Your task to perform on an android device: Open eBay Image 0: 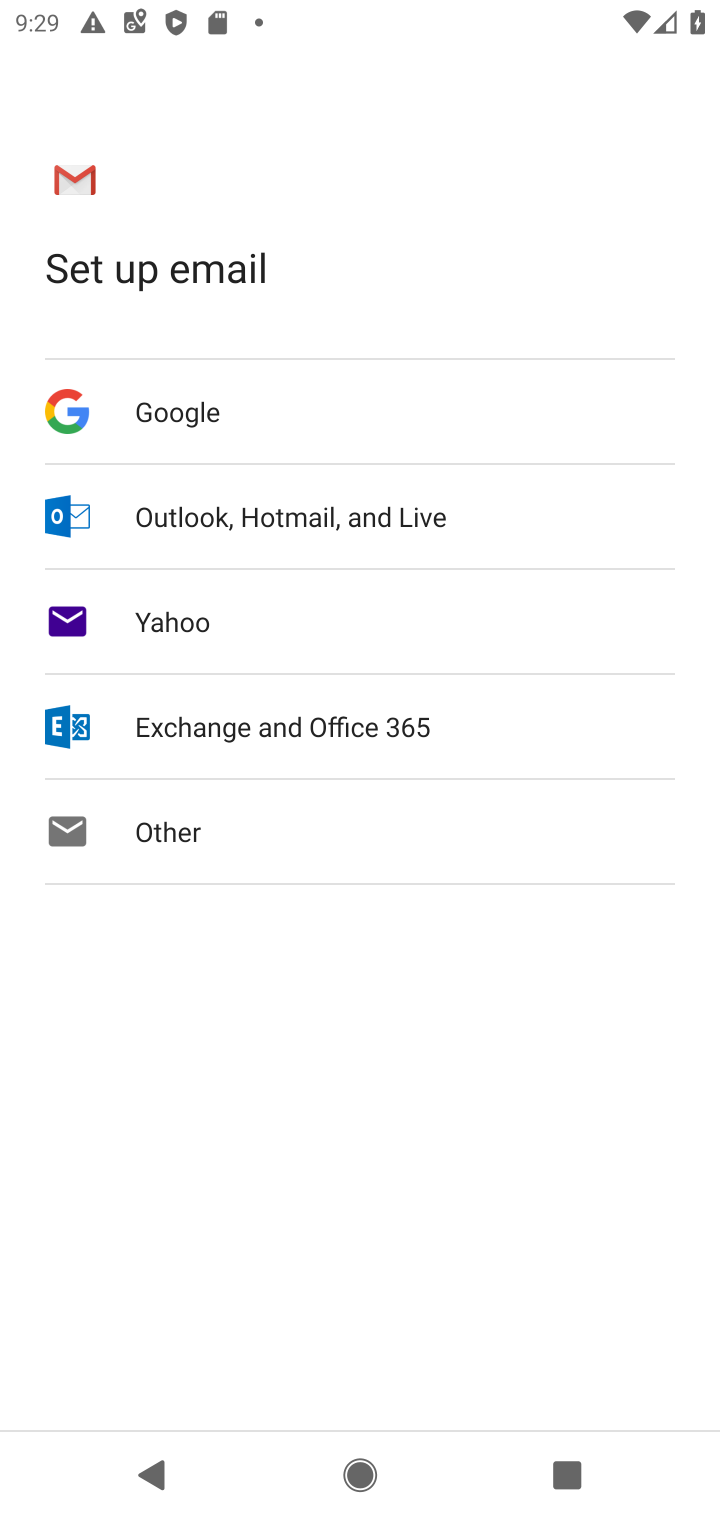
Step 0: press home button
Your task to perform on an android device: Open eBay Image 1: 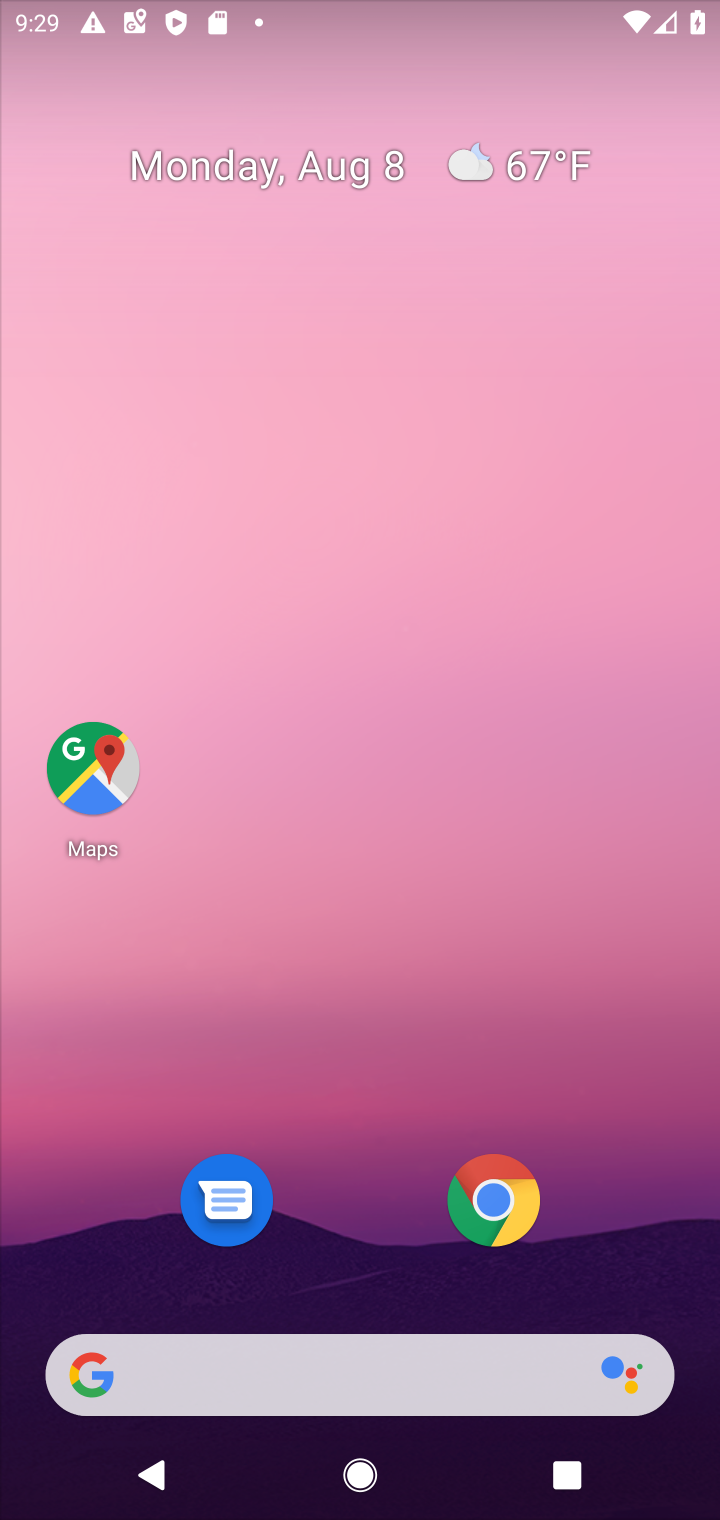
Step 1: click (481, 1203)
Your task to perform on an android device: Open eBay Image 2: 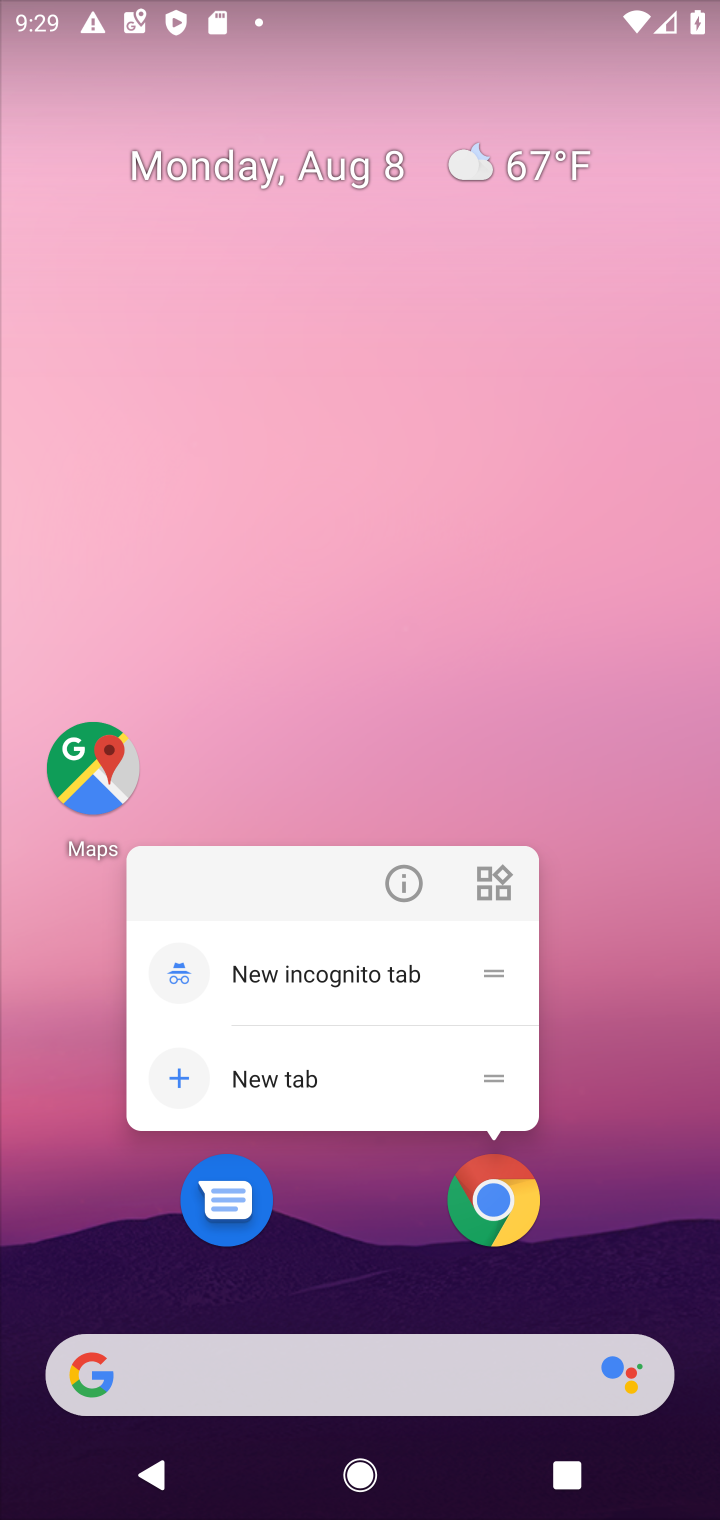
Step 2: click (520, 1199)
Your task to perform on an android device: Open eBay Image 3: 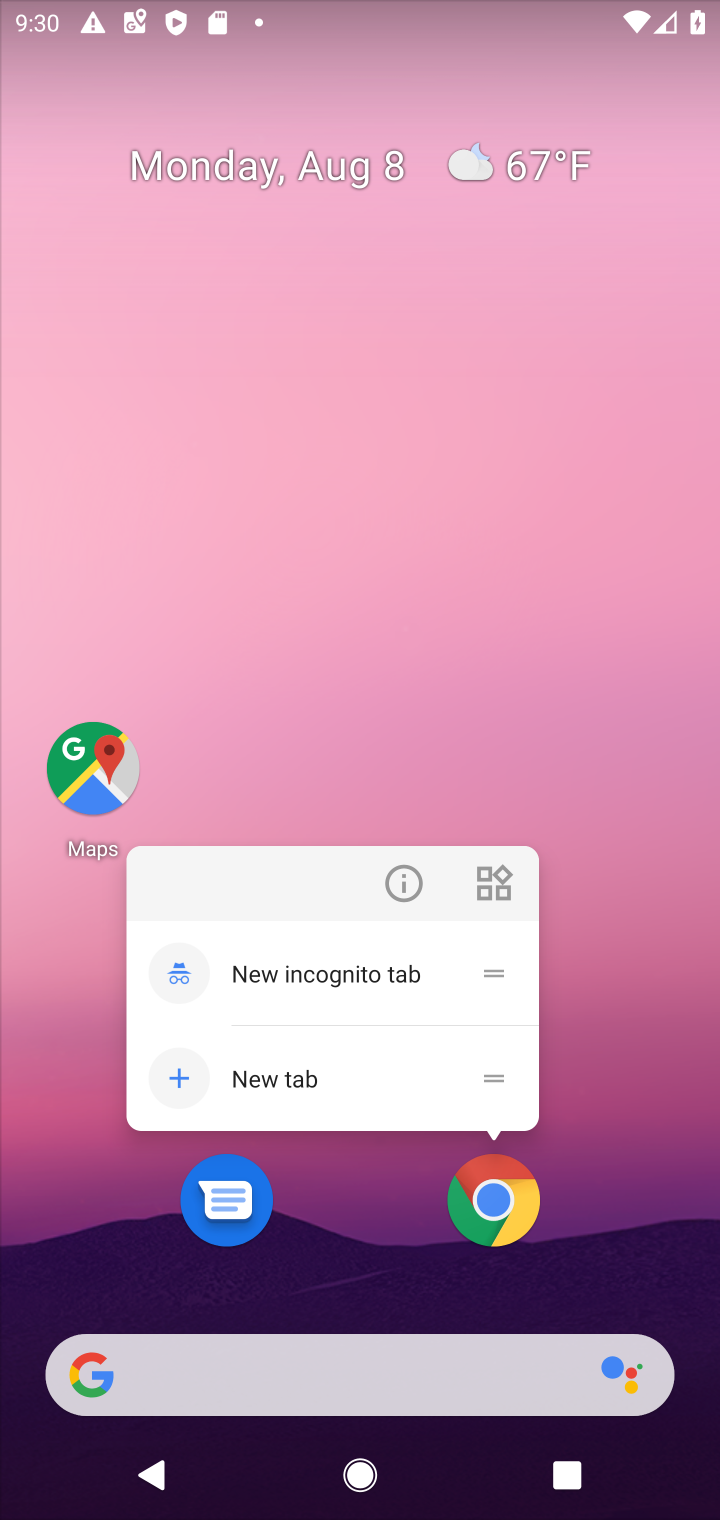
Step 3: click (515, 1203)
Your task to perform on an android device: Open eBay Image 4: 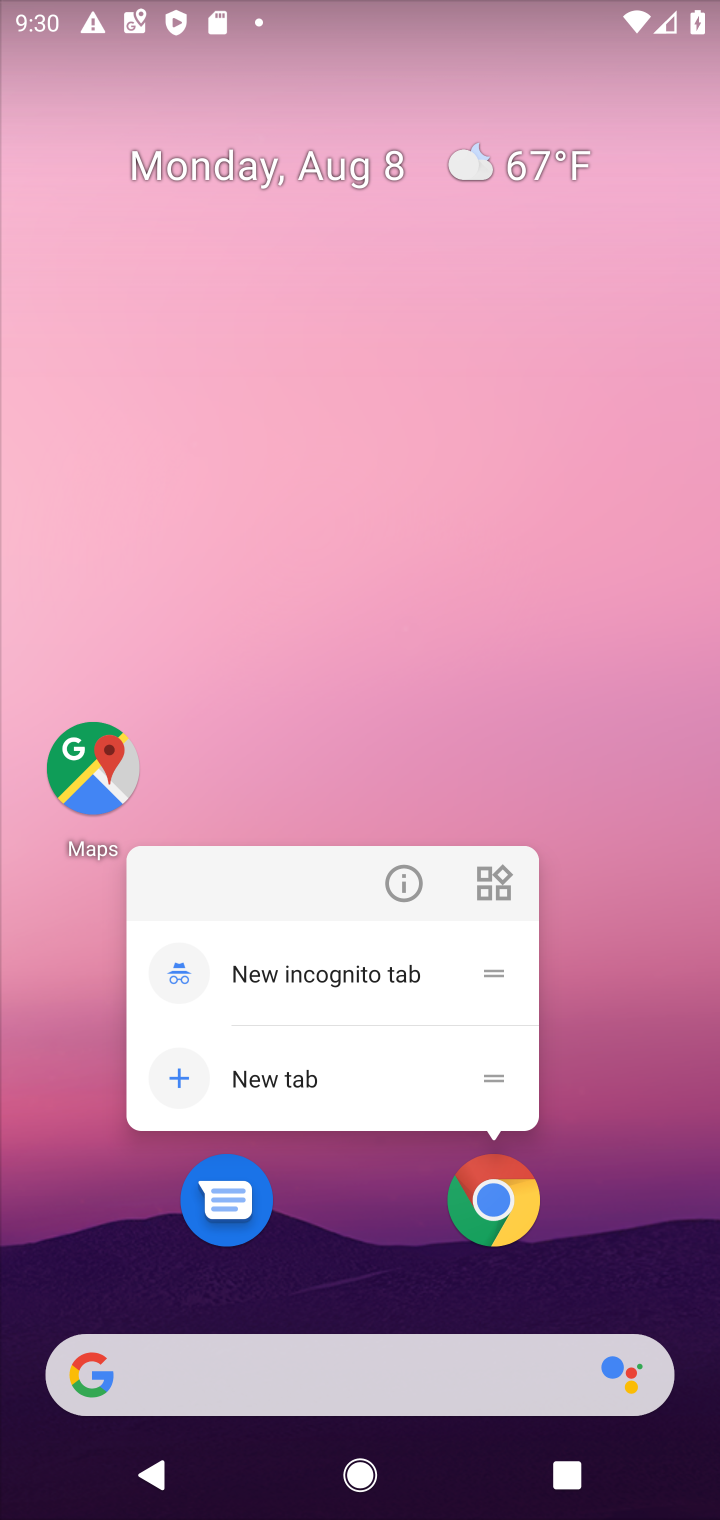
Step 4: click (487, 1222)
Your task to perform on an android device: Open eBay Image 5: 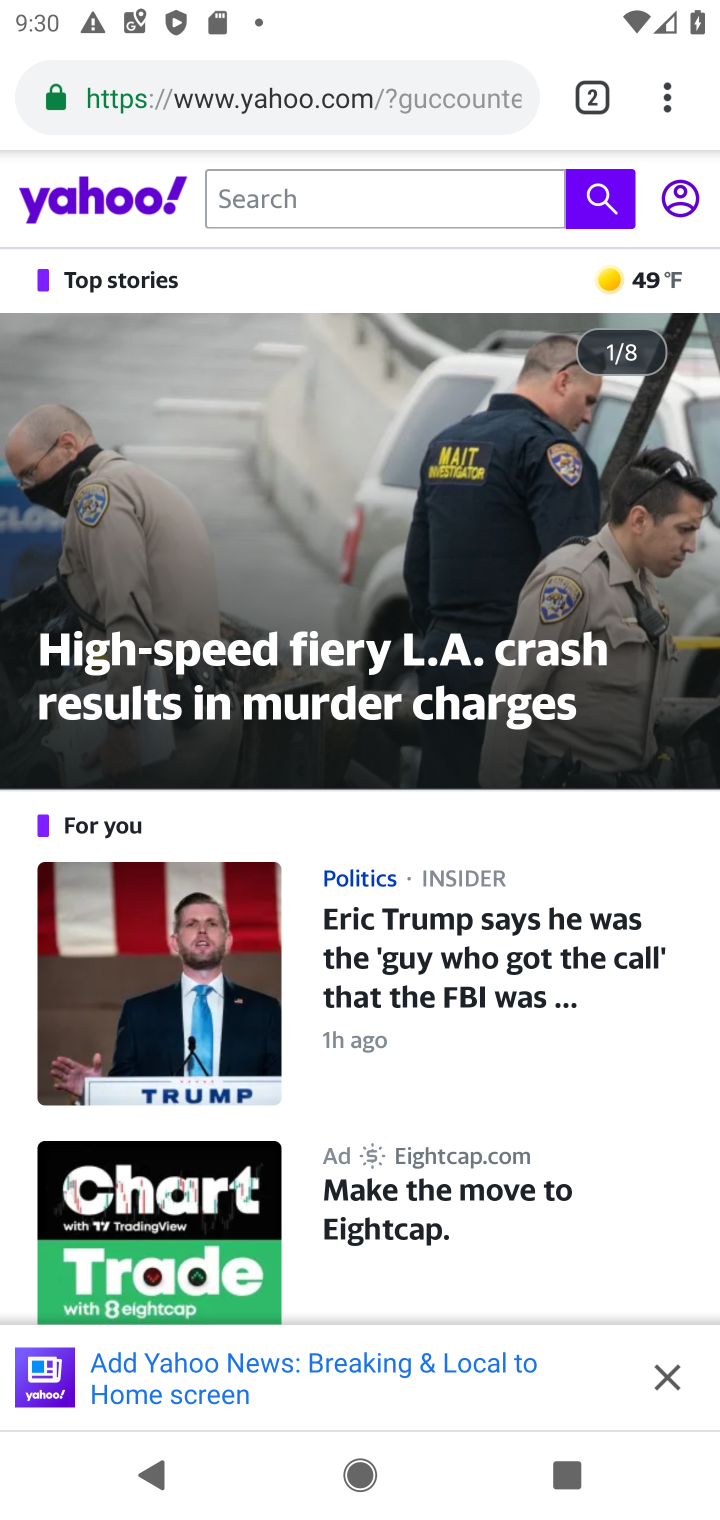
Step 5: drag from (666, 103) to (319, 322)
Your task to perform on an android device: Open eBay Image 6: 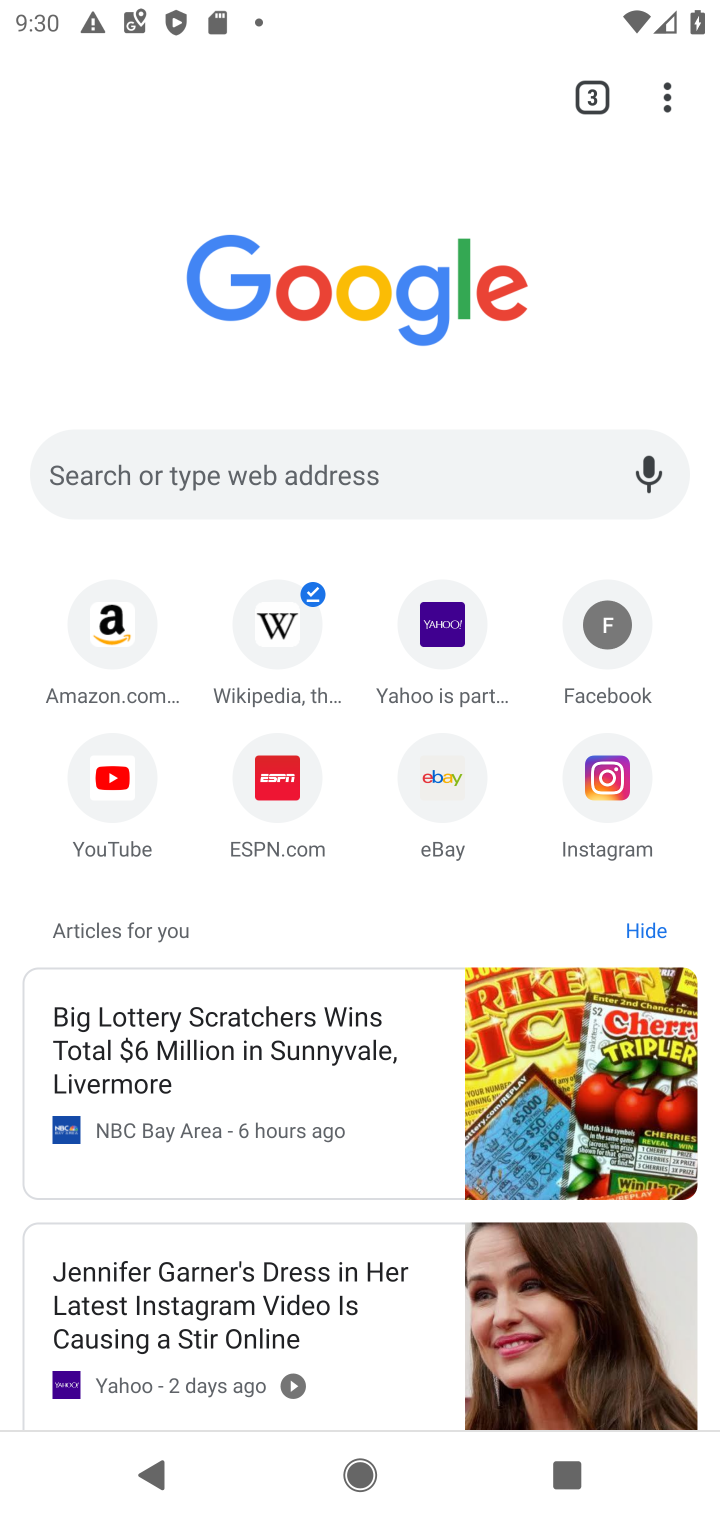
Step 6: click (425, 777)
Your task to perform on an android device: Open eBay Image 7: 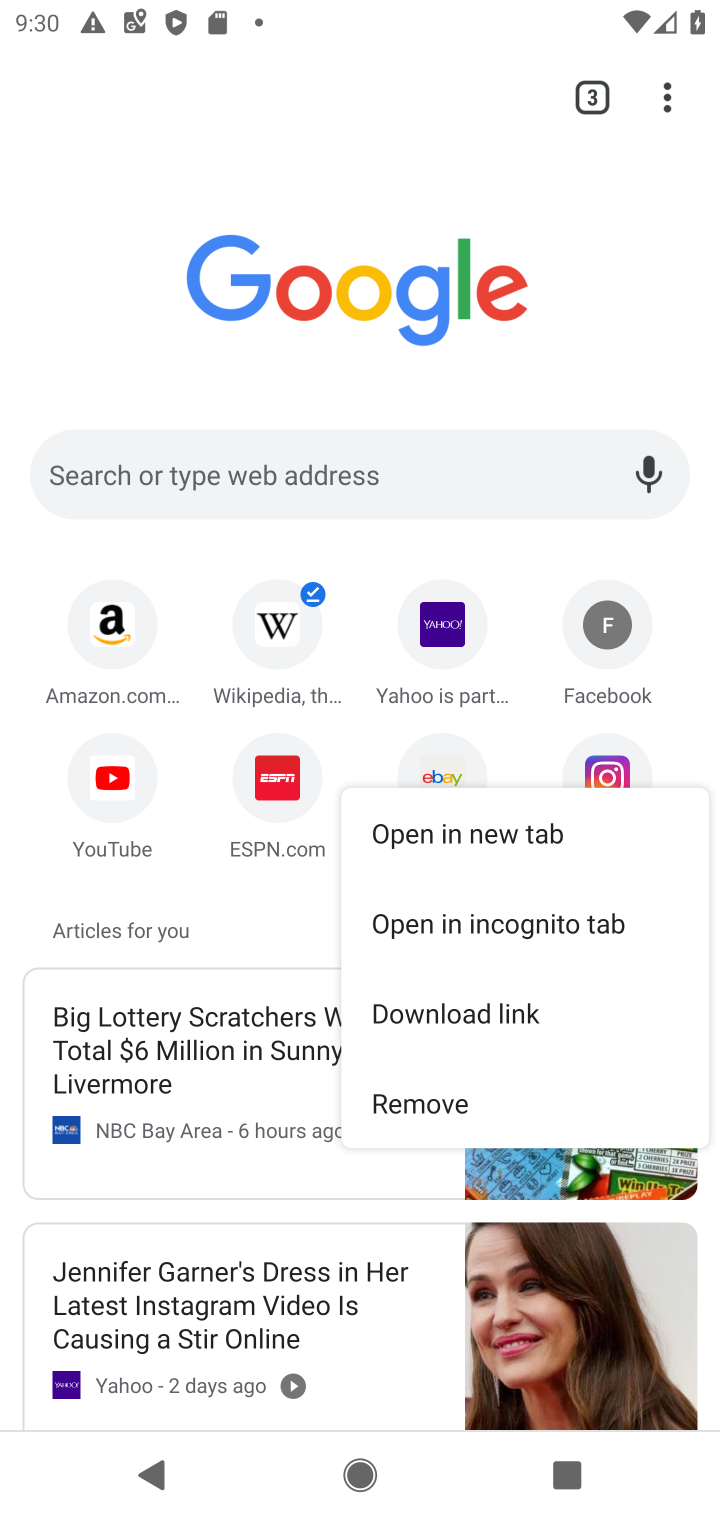
Step 7: click (460, 768)
Your task to perform on an android device: Open eBay Image 8: 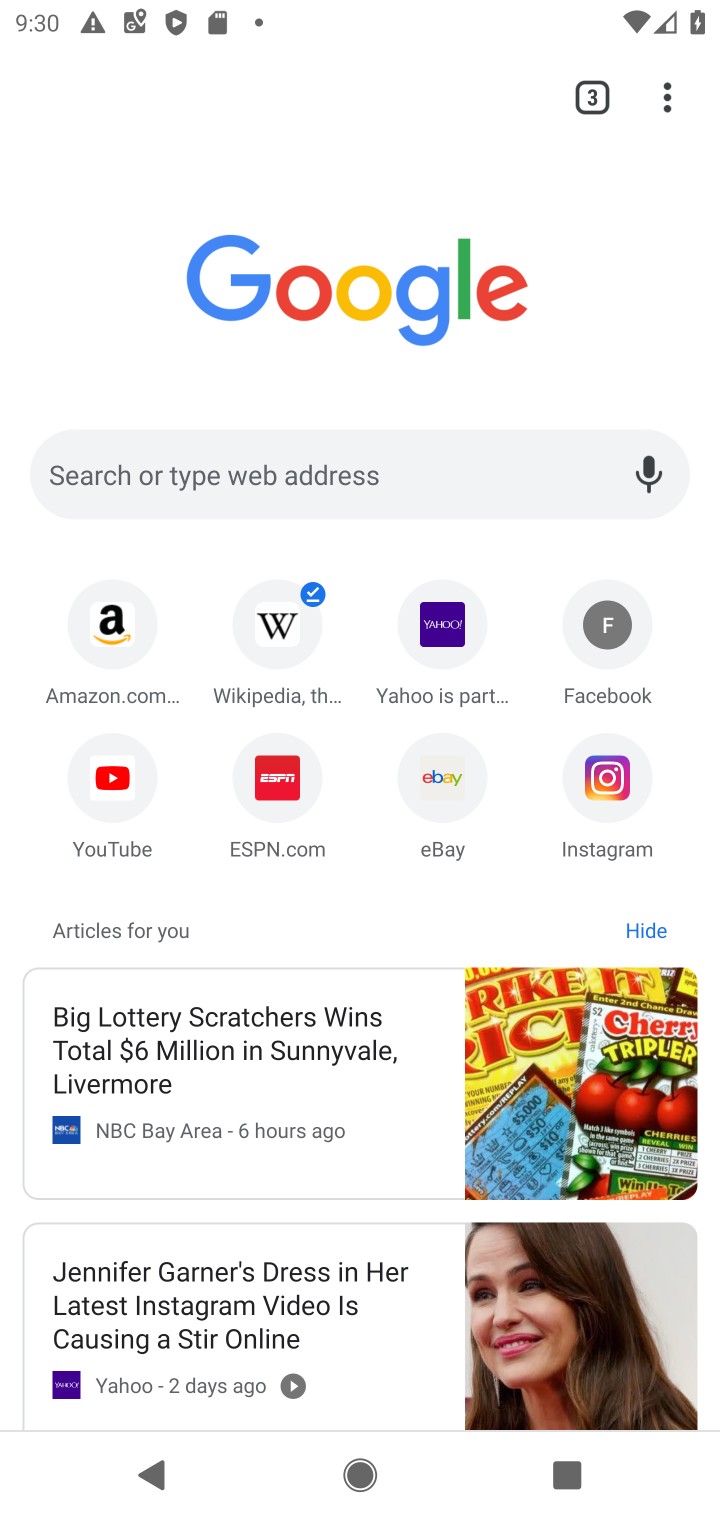
Step 8: click (440, 758)
Your task to perform on an android device: Open eBay Image 9: 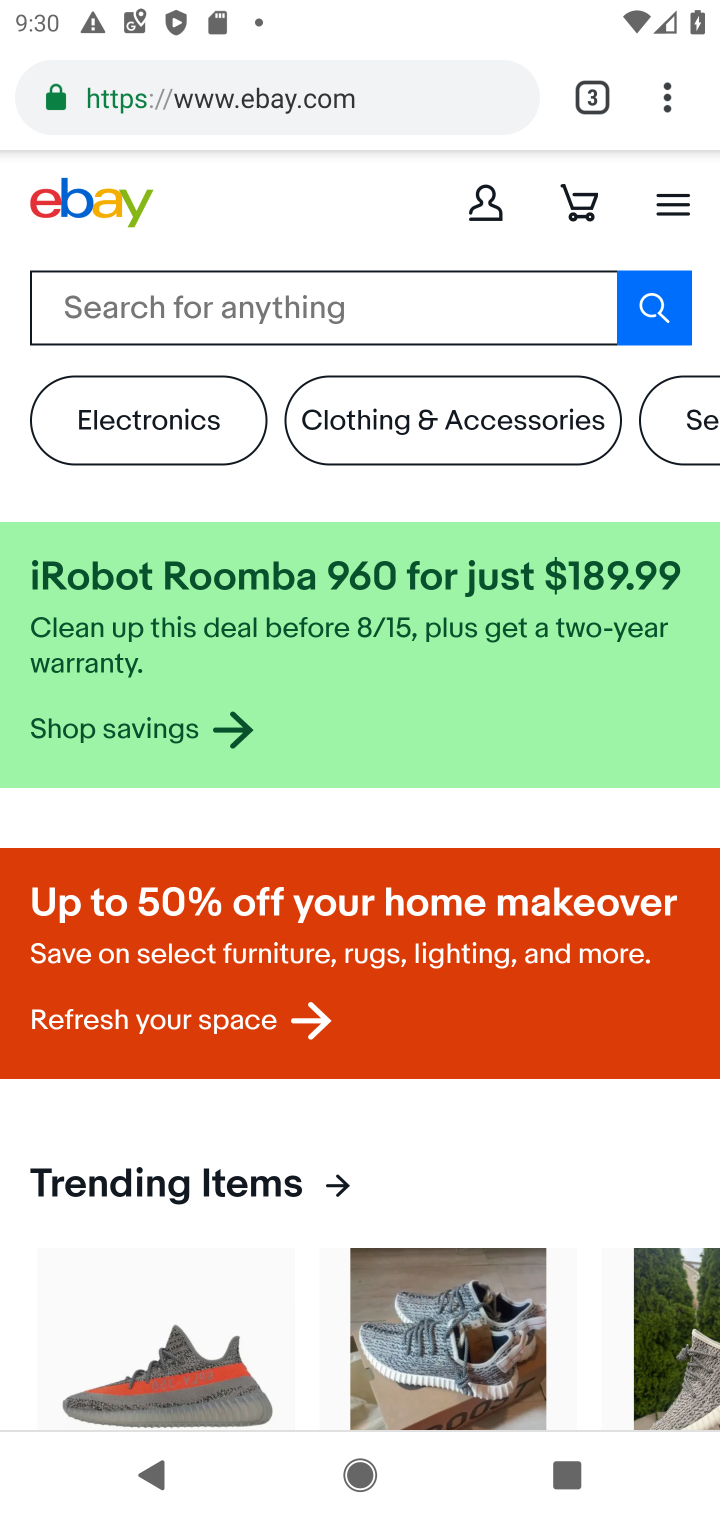
Step 9: task complete